Your task to perform on an android device: toggle improve location accuracy Image 0: 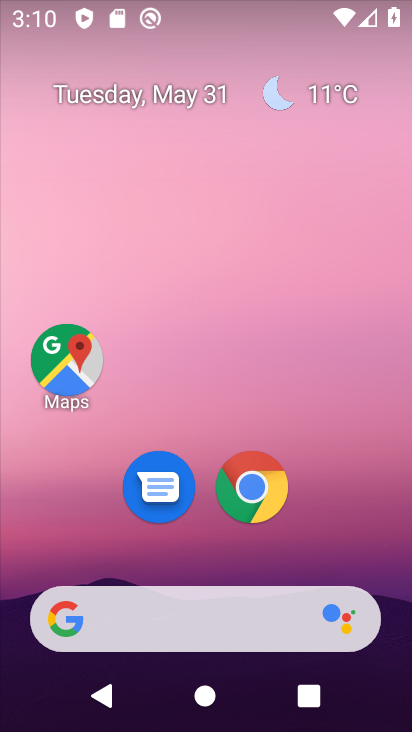
Step 0: drag from (347, 537) to (257, 67)
Your task to perform on an android device: toggle improve location accuracy Image 1: 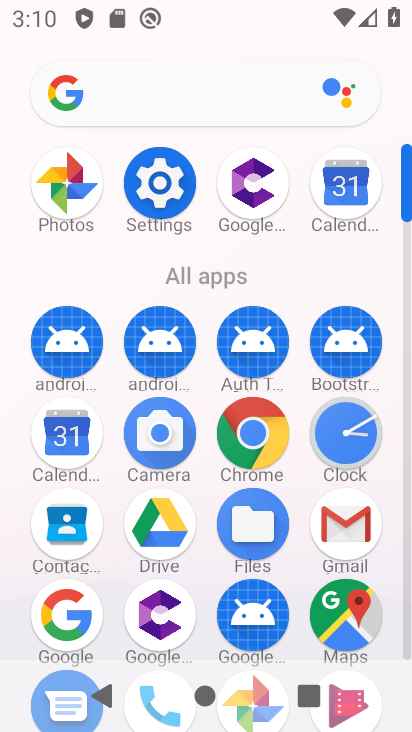
Step 1: click (158, 181)
Your task to perform on an android device: toggle improve location accuracy Image 2: 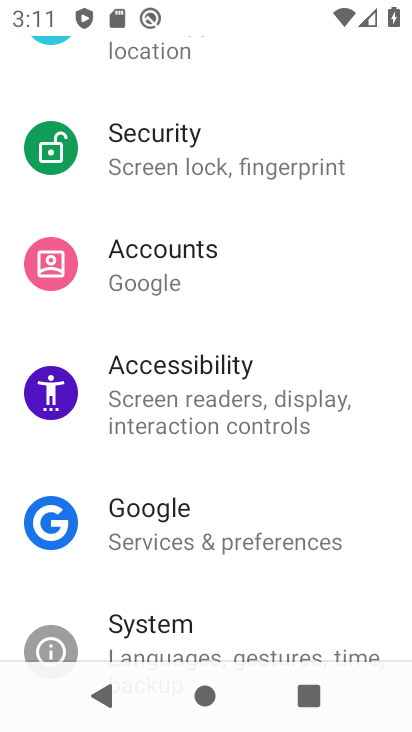
Step 2: drag from (228, 294) to (183, 388)
Your task to perform on an android device: toggle improve location accuracy Image 3: 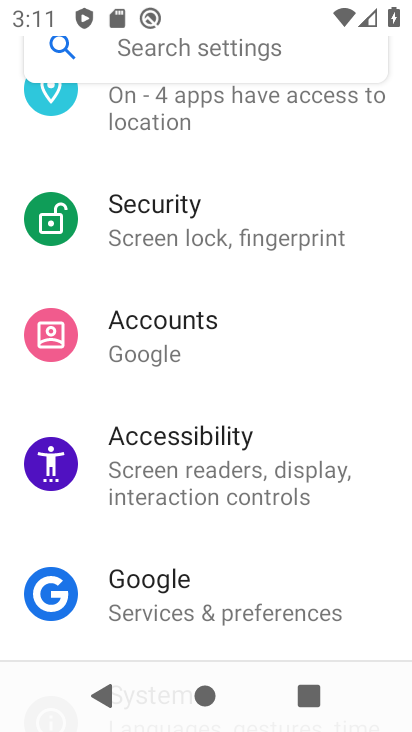
Step 3: drag from (210, 277) to (162, 396)
Your task to perform on an android device: toggle improve location accuracy Image 4: 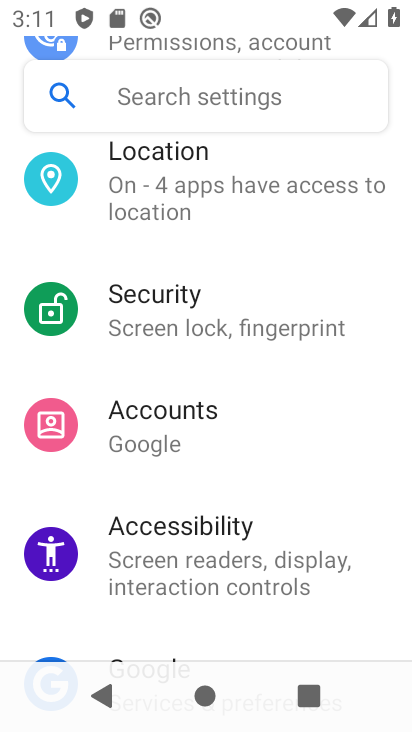
Step 4: drag from (227, 228) to (201, 331)
Your task to perform on an android device: toggle improve location accuracy Image 5: 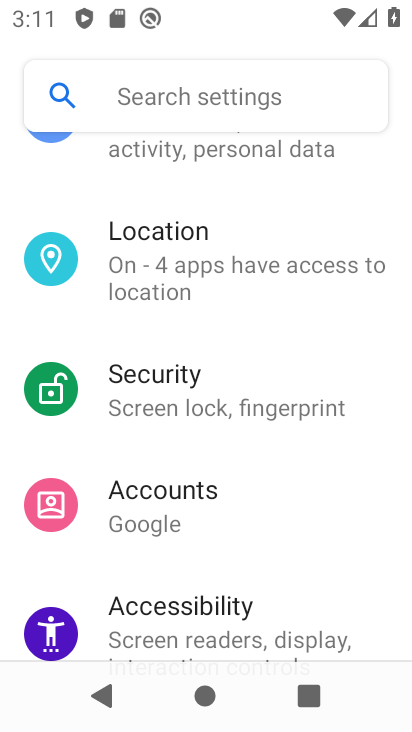
Step 5: click (208, 236)
Your task to perform on an android device: toggle improve location accuracy Image 6: 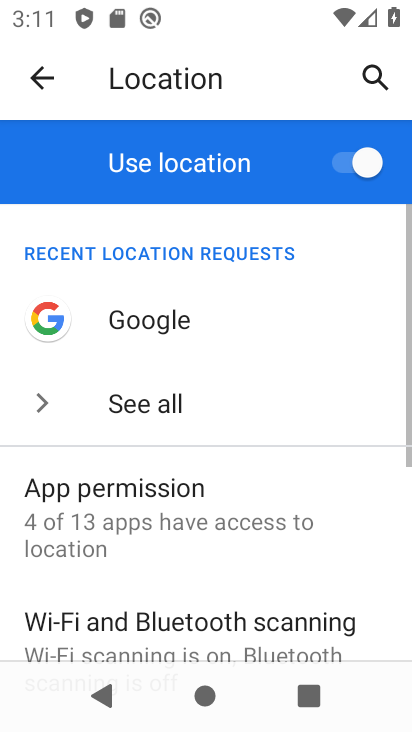
Step 6: drag from (185, 547) to (278, 369)
Your task to perform on an android device: toggle improve location accuracy Image 7: 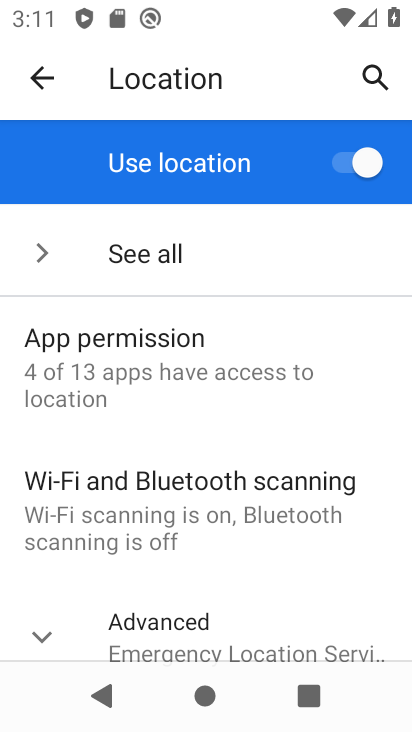
Step 7: drag from (208, 580) to (277, 432)
Your task to perform on an android device: toggle improve location accuracy Image 8: 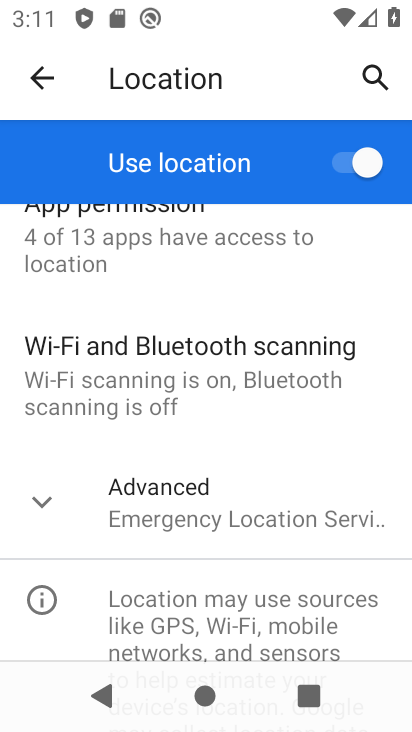
Step 8: click (246, 528)
Your task to perform on an android device: toggle improve location accuracy Image 9: 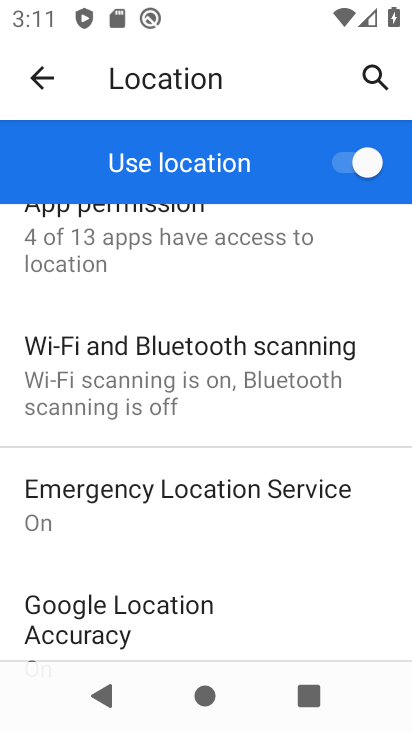
Step 9: drag from (243, 575) to (333, 446)
Your task to perform on an android device: toggle improve location accuracy Image 10: 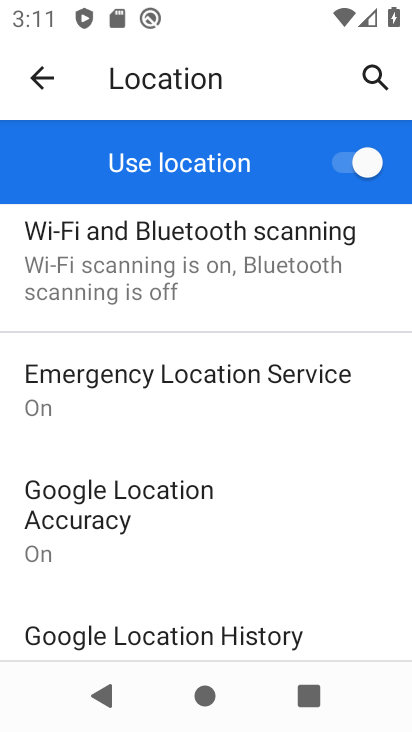
Step 10: click (221, 504)
Your task to perform on an android device: toggle improve location accuracy Image 11: 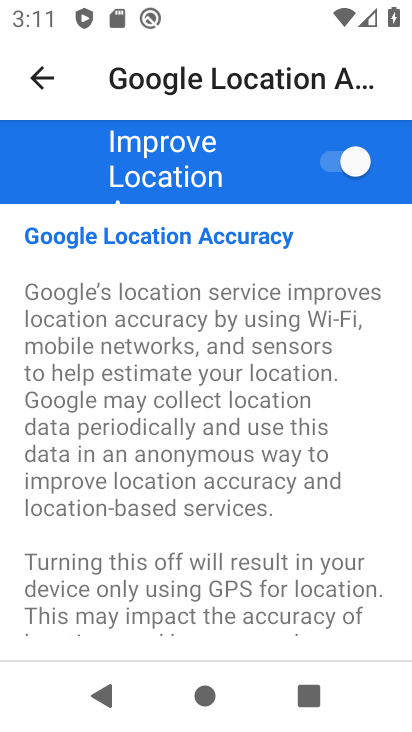
Step 11: click (358, 159)
Your task to perform on an android device: toggle improve location accuracy Image 12: 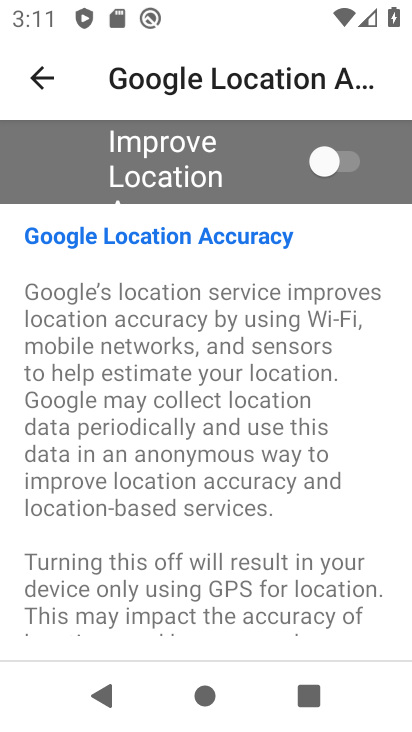
Step 12: task complete